Your task to perform on an android device: Open Google Chrome and click the shortcut for Amazon.com Image 0: 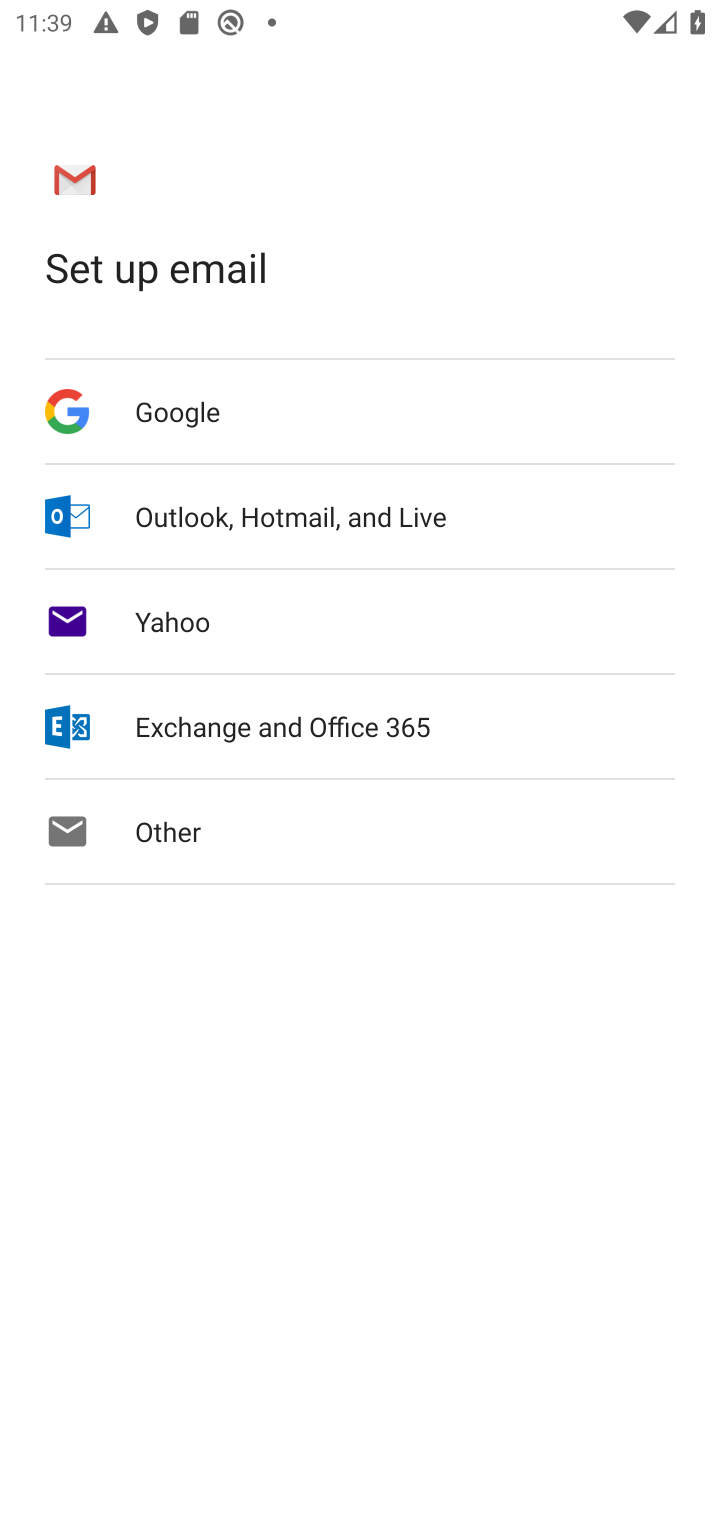
Step 0: press home button
Your task to perform on an android device: Open Google Chrome and click the shortcut for Amazon.com Image 1: 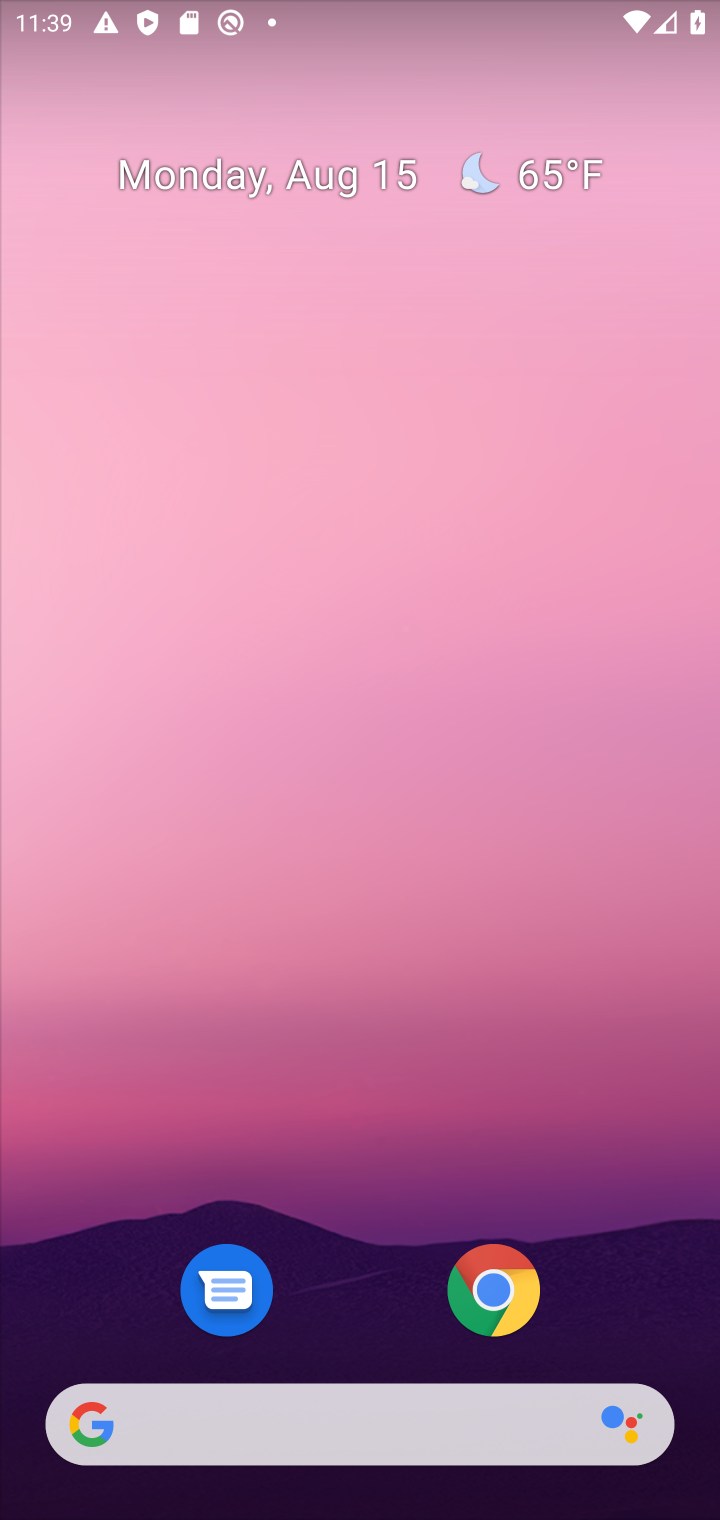
Step 1: click (501, 1292)
Your task to perform on an android device: Open Google Chrome and click the shortcut for Amazon.com Image 2: 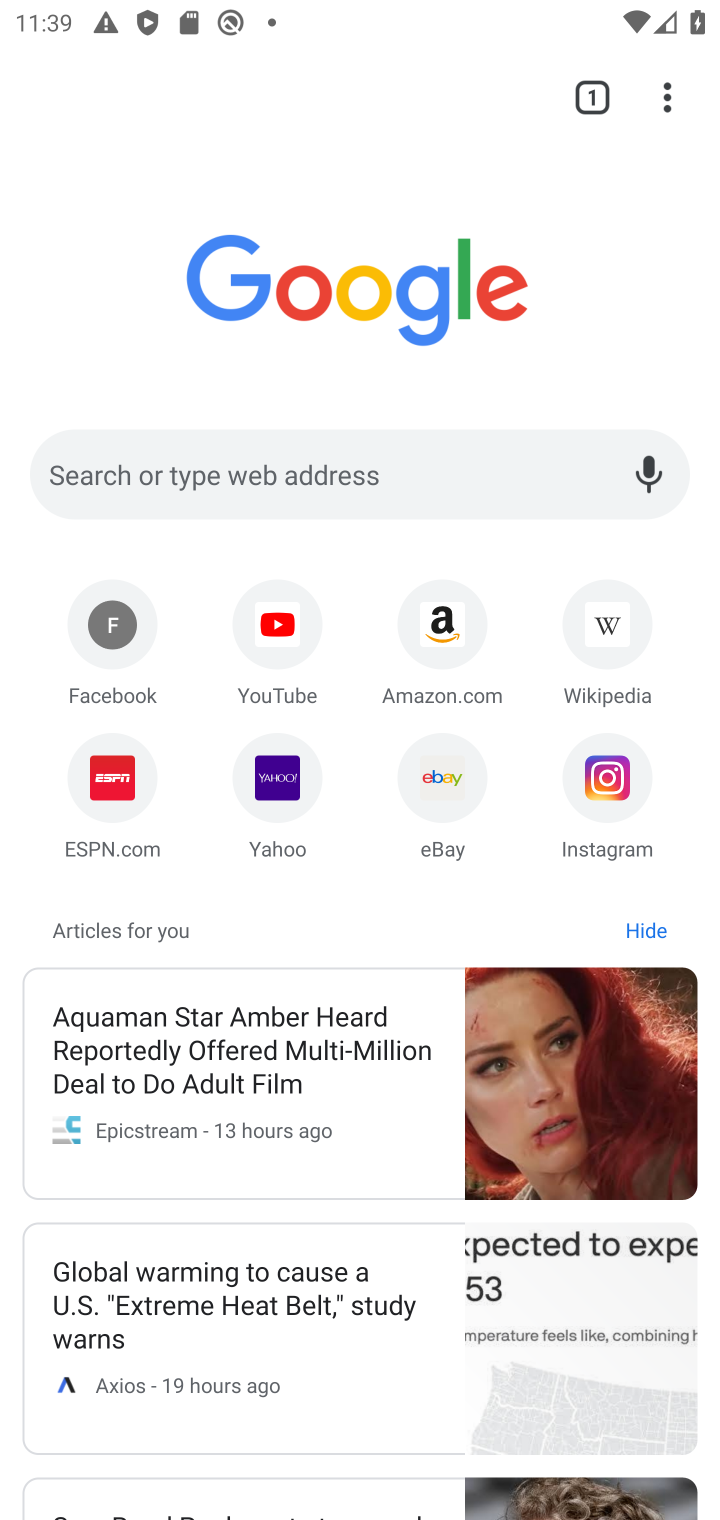
Step 2: click (447, 627)
Your task to perform on an android device: Open Google Chrome and click the shortcut for Amazon.com Image 3: 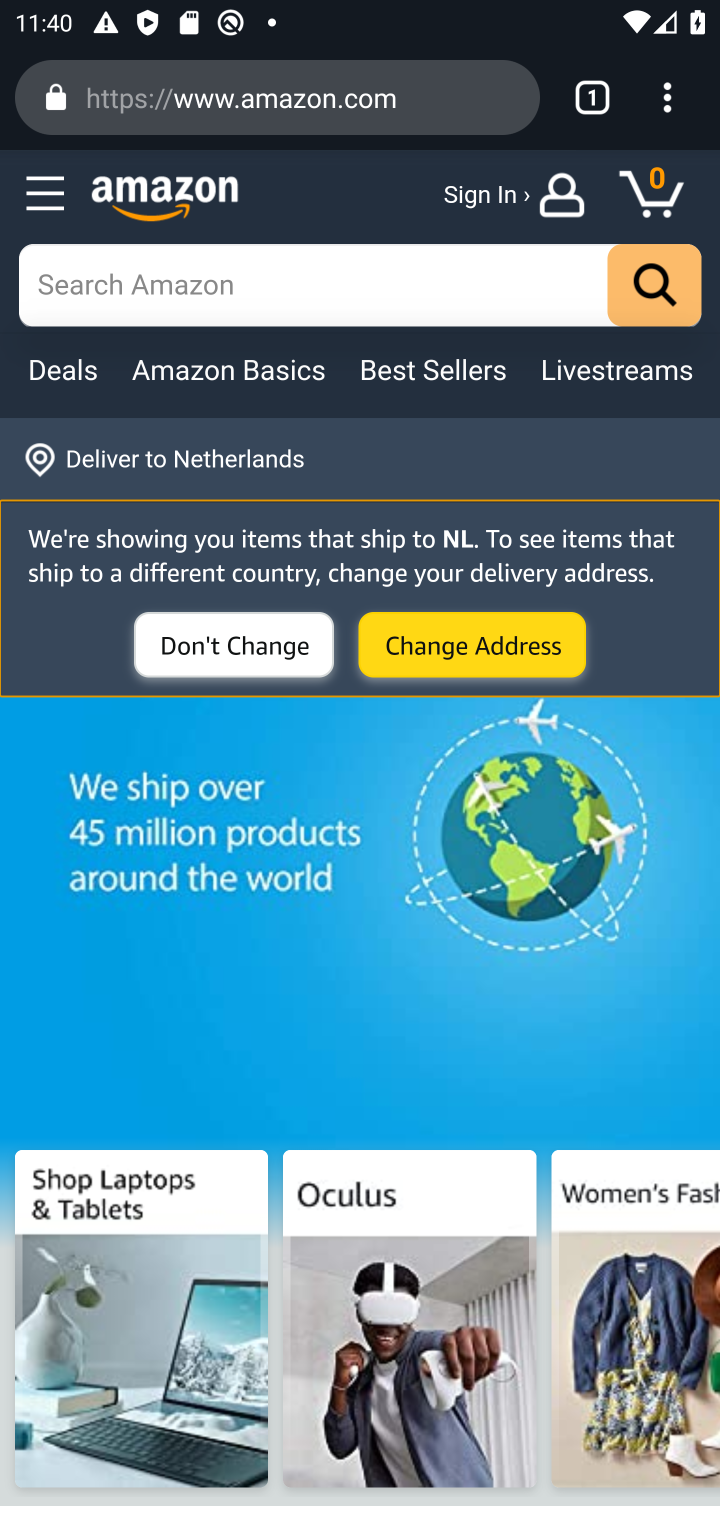
Step 3: task complete